Your task to perform on an android device: Open Google Maps and go to "Timeline" Image 0: 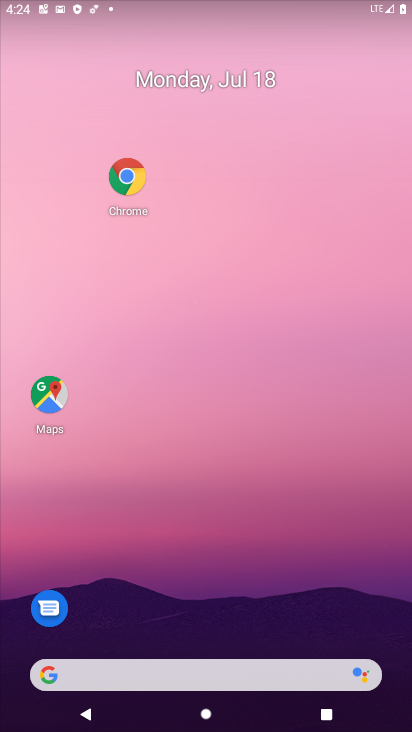
Step 0: drag from (231, 680) to (294, 36)
Your task to perform on an android device: Open Google Maps and go to "Timeline" Image 1: 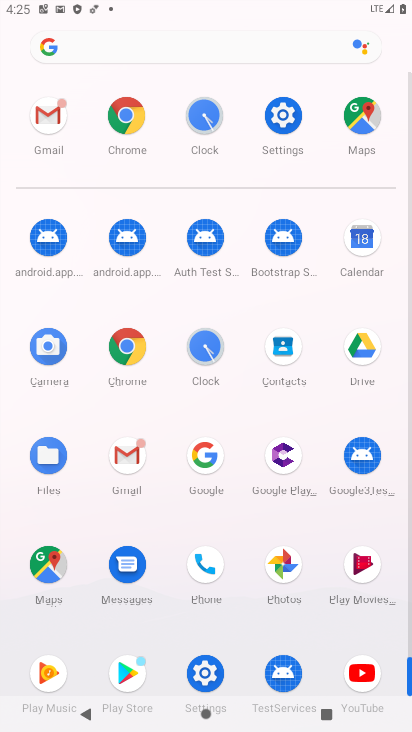
Step 1: click (353, 129)
Your task to perform on an android device: Open Google Maps and go to "Timeline" Image 2: 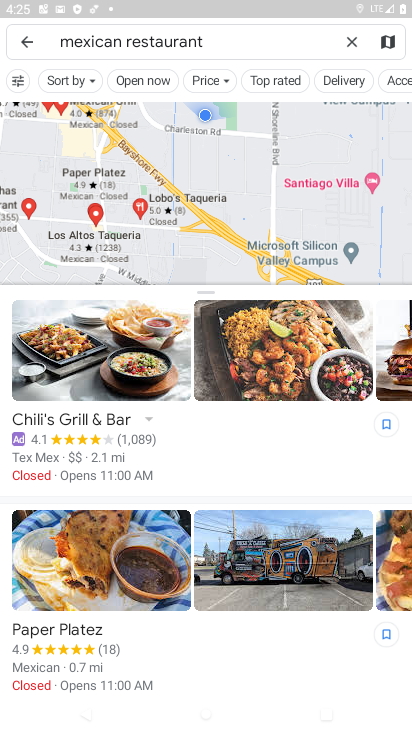
Step 2: click (29, 41)
Your task to perform on an android device: Open Google Maps and go to "Timeline" Image 3: 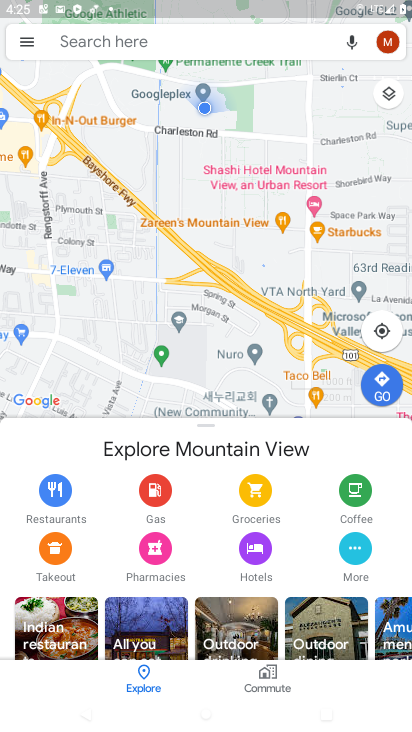
Step 3: click (32, 40)
Your task to perform on an android device: Open Google Maps and go to "Timeline" Image 4: 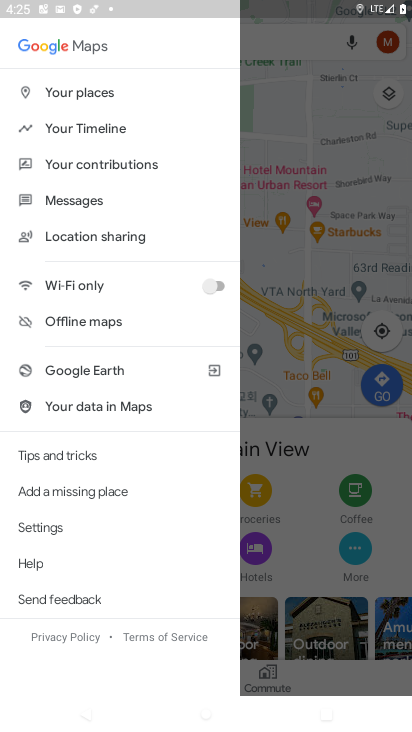
Step 4: click (98, 122)
Your task to perform on an android device: Open Google Maps and go to "Timeline" Image 5: 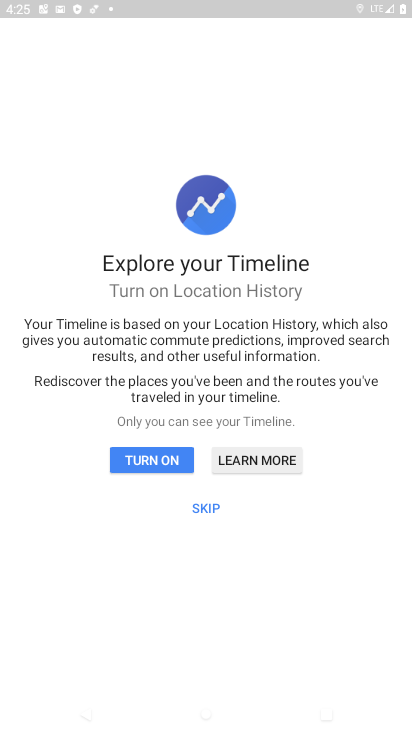
Step 5: click (209, 511)
Your task to perform on an android device: Open Google Maps and go to "Timeline" Image 6: 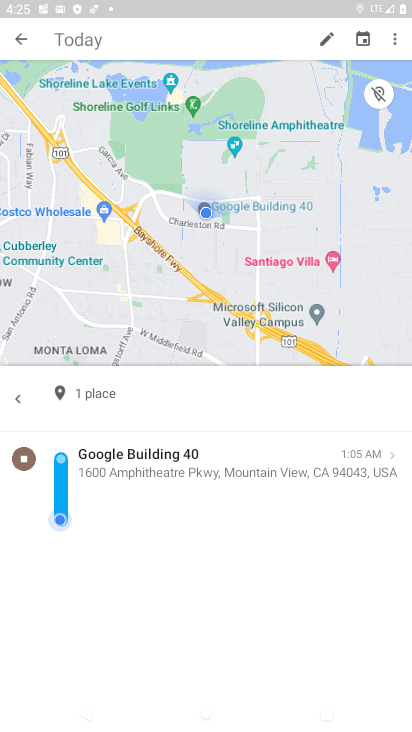
Step 6: task complete